Your task to perform on an android device: Open wifi settings Image 0: 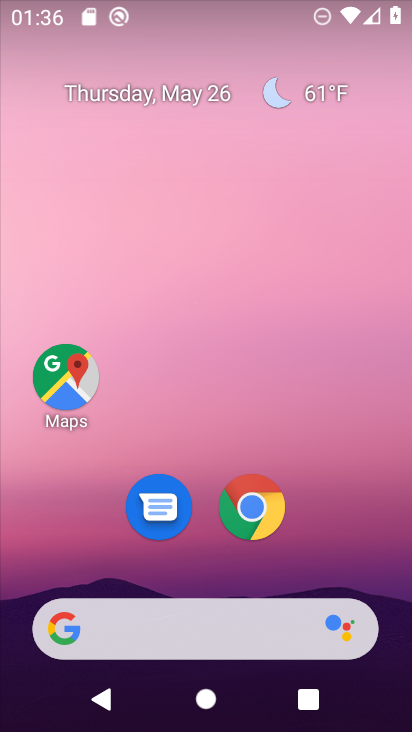
Step 0: drag from (372, 560) to (399, 168)
Your task to perform on an android device: Open wifi settings Image 1: 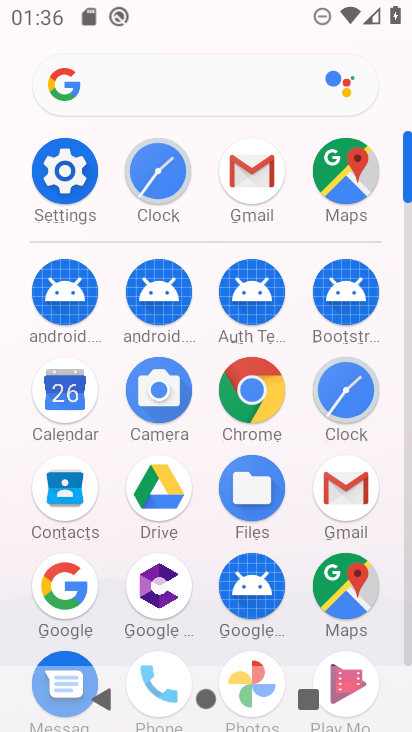
Step 1: click (85, 162)
Your task to perform on an android device: Open wifi settings Image 2: 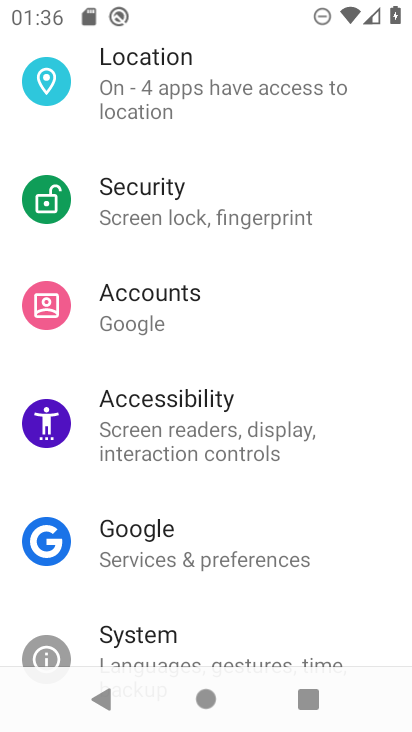
Step 2: drag from (120, 169) to (148, 543)
Your task to perform on an android device: Open wifi settings Image 3: 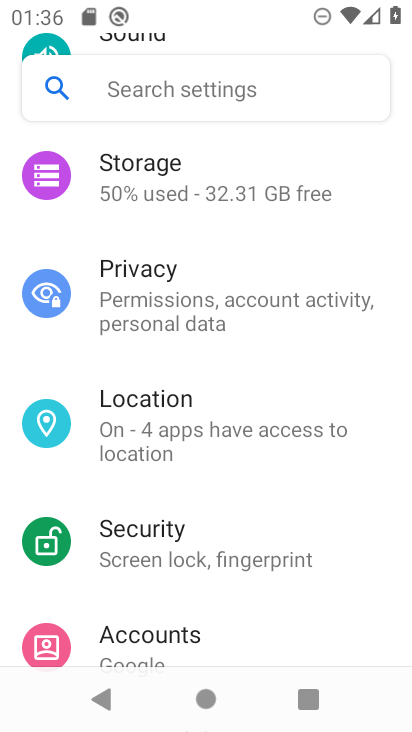
Step 3: drag from (259, 191) to (269, 287)
Your task to perform on an android device: Open wifi settings Image 4: 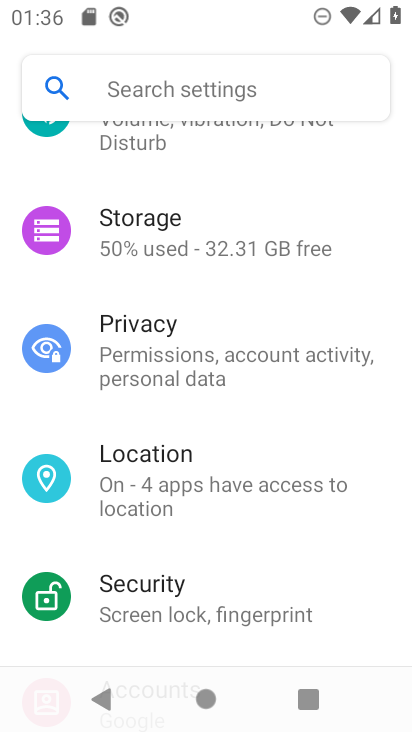
Step 4: drag from (266, 190) to (333, 515)
Your task to perform on an android device: Open wifi settings Image 5: 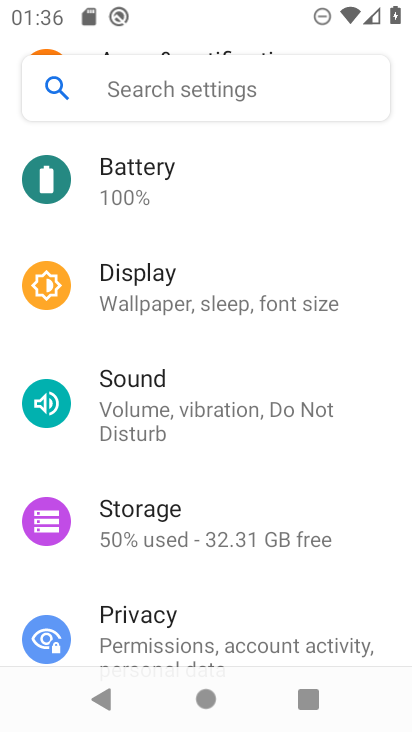
Step 5: drag from (236, 169) to (229, 487)
Your task to perform on an android device: Open wifi settings Image 6: 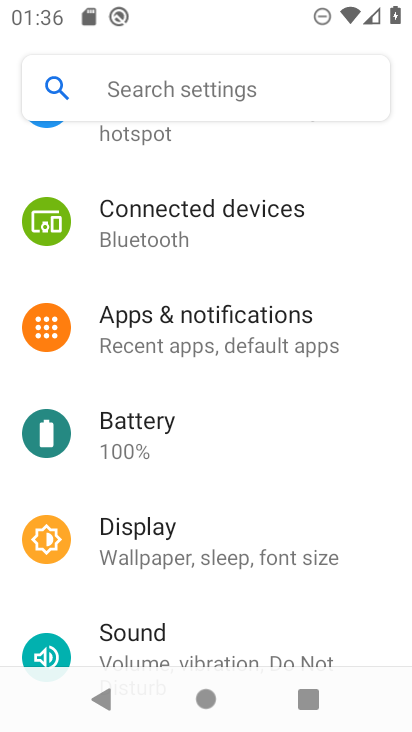
Step 6: drag from (230, 230) to (339, 705)
Your task to perform on an android device: Open wifi settings Image 7: 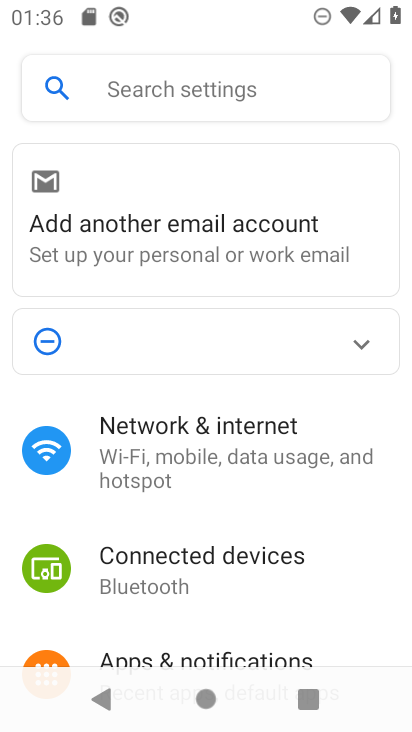
Step 7: click (237, 384)
Your task to perform on an android device: Open wifi settings Image 8: 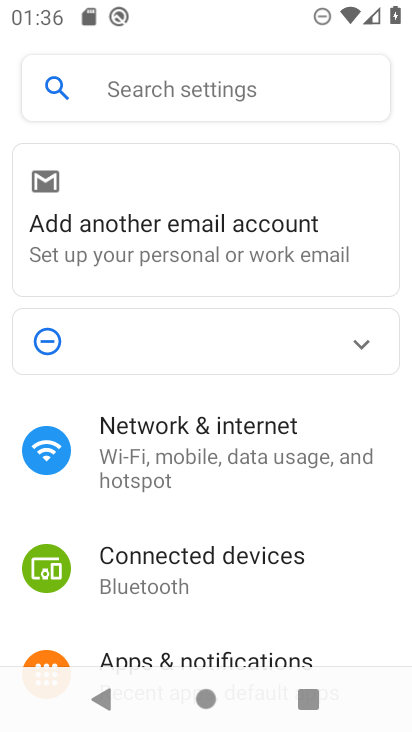
Step 8: click (237, 384)
Your task to perform on an android device: Open wifi settings Image 9: 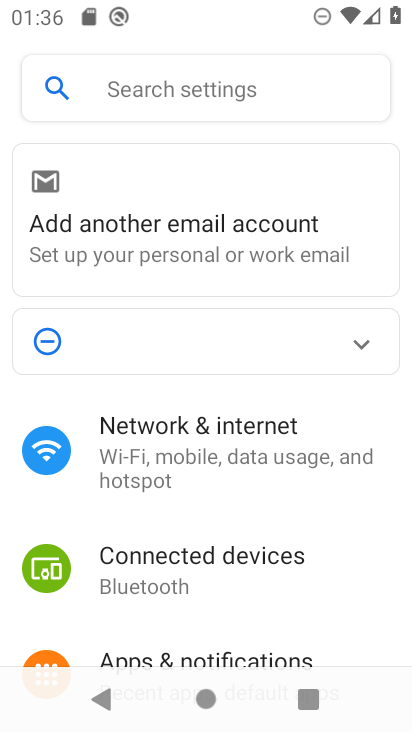
Step 9: click (209, 454)
Your task to perform on an android device: Open wifi settings Image 10: 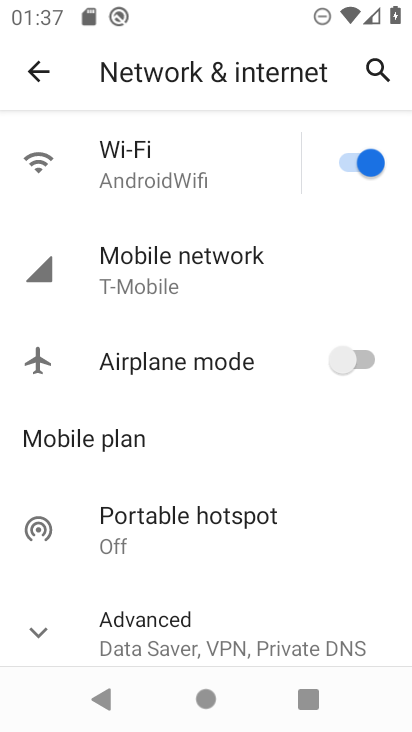
Step 10: click (378, 212)
Your task to perform on an android device: Open wifi settings Image 11: 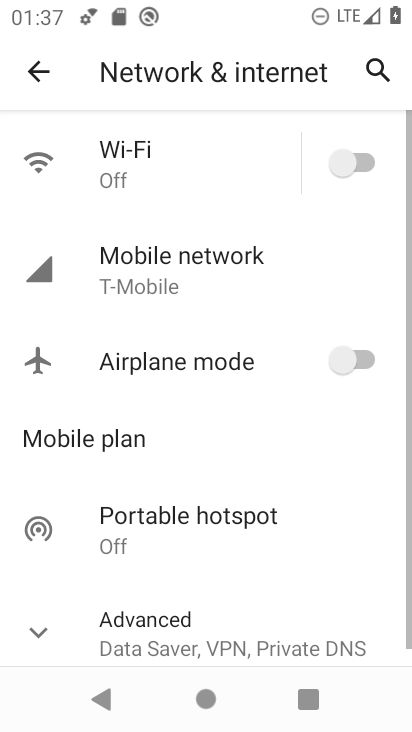
Step 11: click (144, 168)
Your task to perform on an android device: Open wifi settings Image 12: 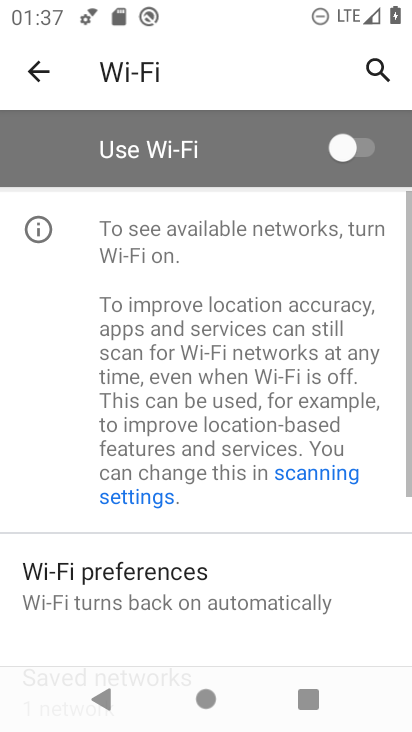
Step 12: click (390, 143)
Your task to perform on an android device: Open wifi settings Image 13: 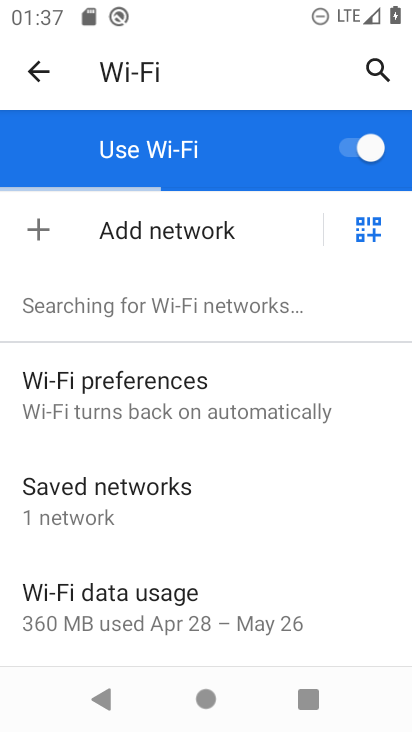
Step 13: task complete